Your task to perform on an android device: turn off notifications in google photos Image 0: 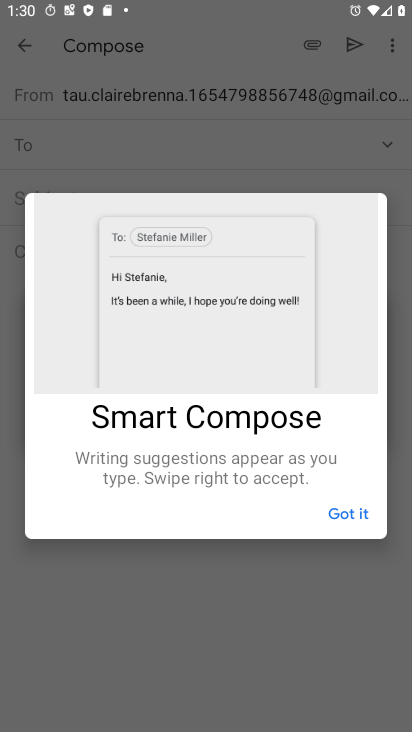
Step 0: press home button
Your task to perform on an android device: turn off notifications in google photos Image 1: 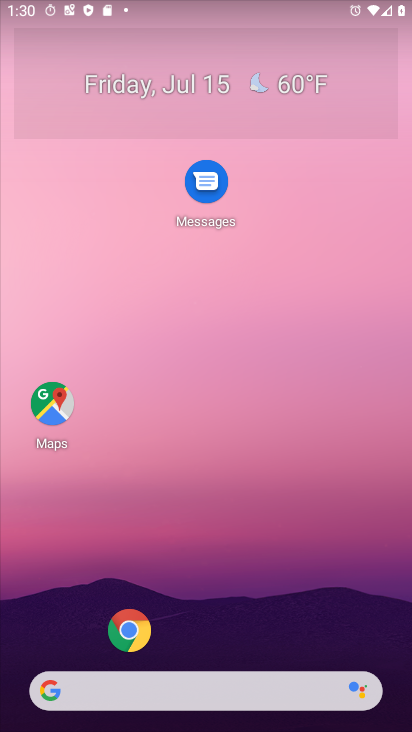
Step 1: drag from (10, 720) to (252, 11)
Your task to perform on an android device: turn off notifications in google photos Image 2: 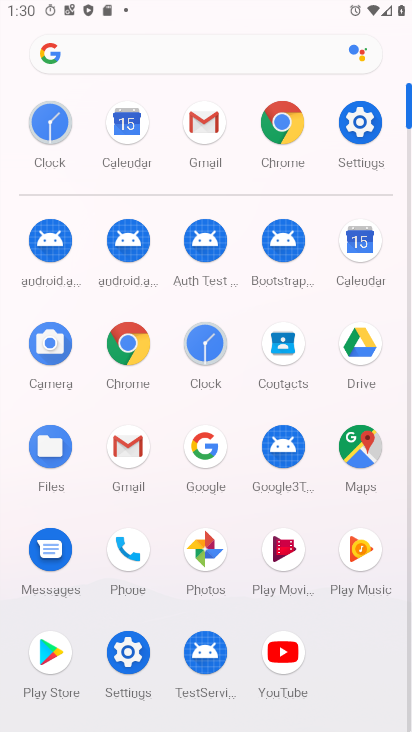
Step 2: click (196, 550)
Your task to perform on an android device: turn off notifications in google photos Image 3: 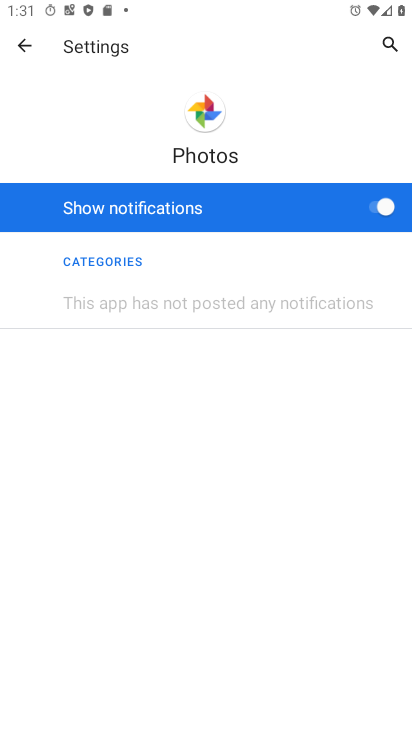
Step 3: click (385, 207)
Your task to perform on an android device: turn off notifications in google photos Image 4: 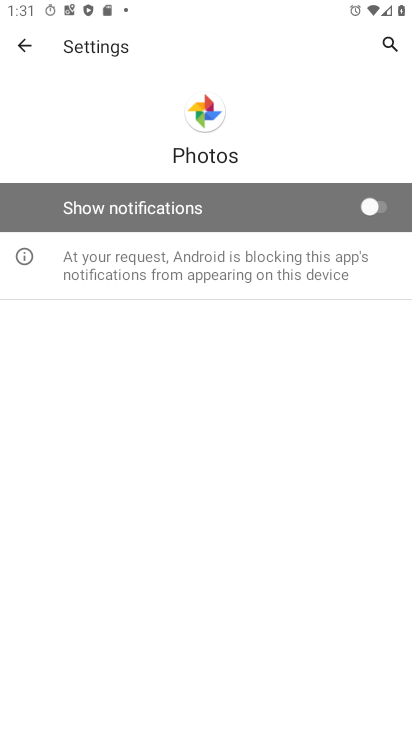
Step 4: task complete